Your task to perform on an android device: toggle airplane mode Image 0: 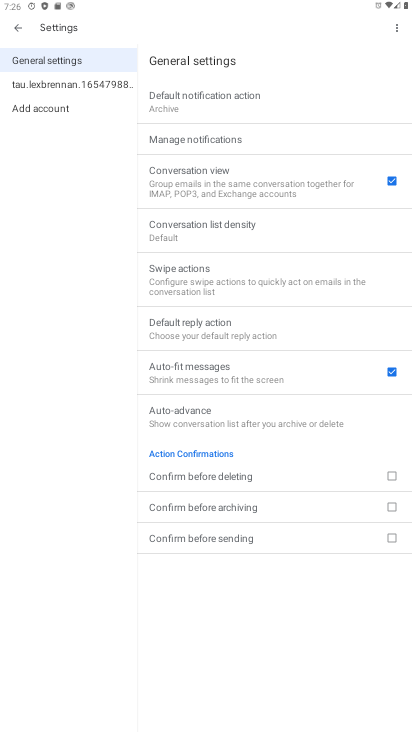
Step 0: press home button
Your task to perform on an android device: toggle airplane mode Image 1: 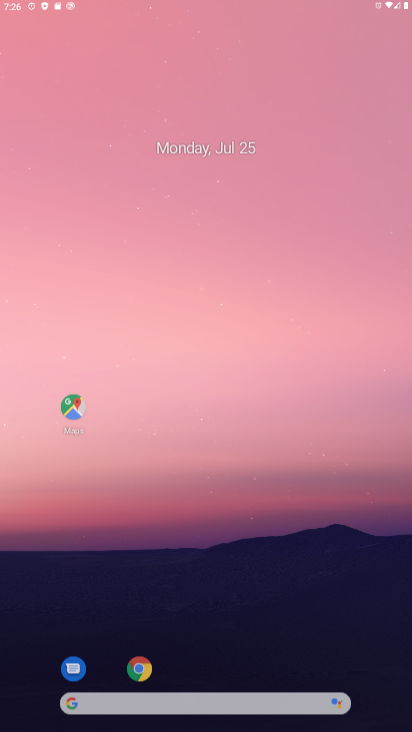
Step 1: drag from (370, 692) to (220, 61)
Your task to perform on an android device: toggle airplane mode Image 2: 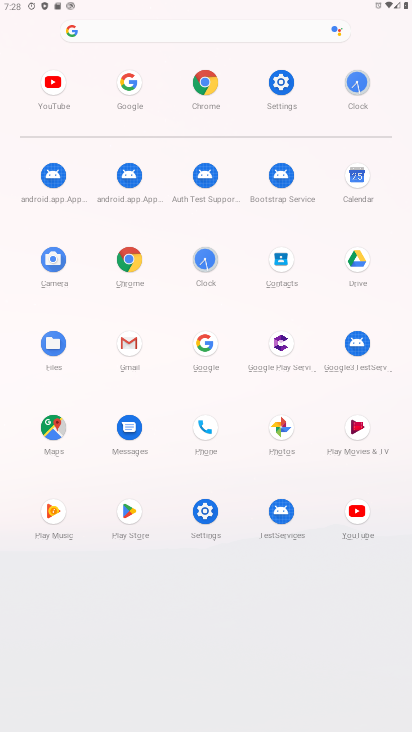
Step 2: drag from (285, 8) to (366, 637)
Your task to perform on an android device: toggle airplane mode Image 3: 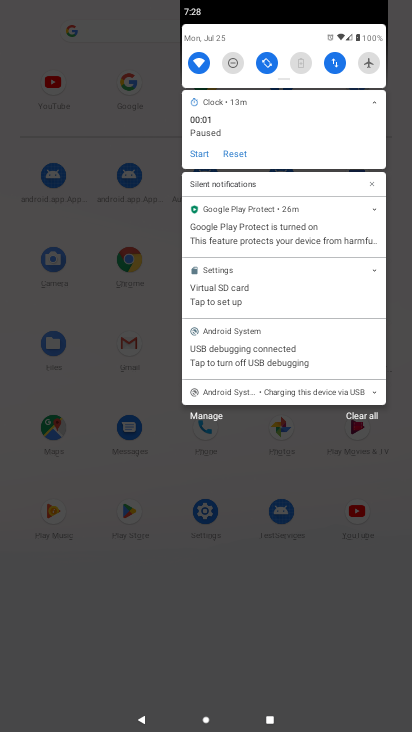
Step 3: click (367, 56)
Your task to perform on an android device: toggle airplane mode Image 4: 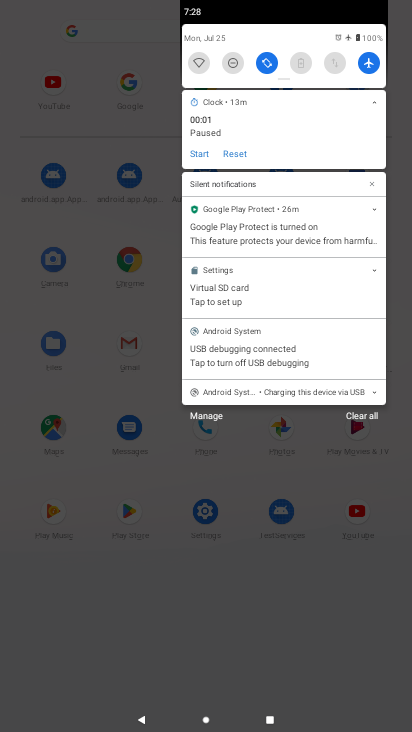
Step 4: task complete